Your task to perform on an android device: change the clock display to digital Image 0: 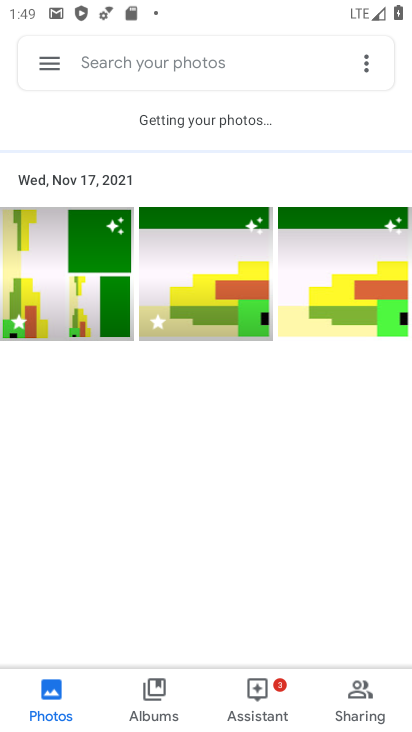
Step 0: press back button
Your task to perform on an android device: change the clock display to digital Image 1: 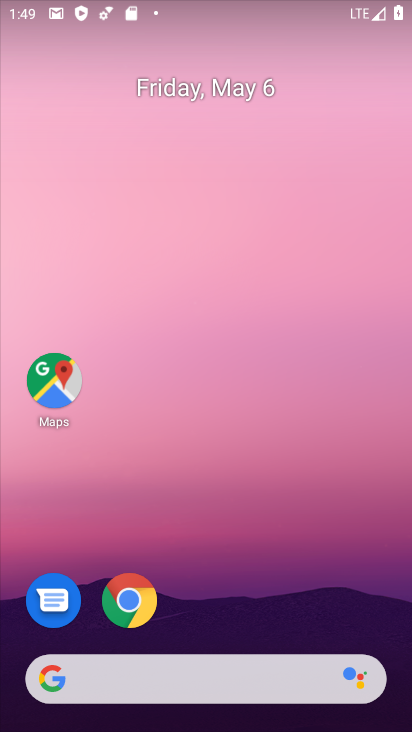
Step 1: drag from (207, 648) to (310, 60)
Your task to perform on an android device: change the clock display to digital Image 2: 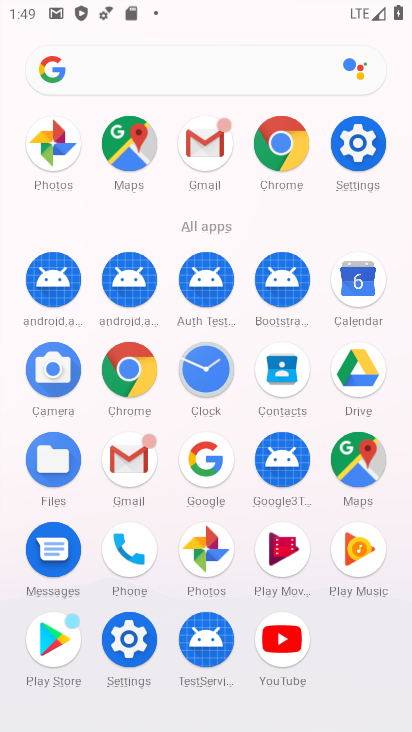
Step 2: click (206, 361)
Your task to perform on an android device: change the clock display to digital Image 3: 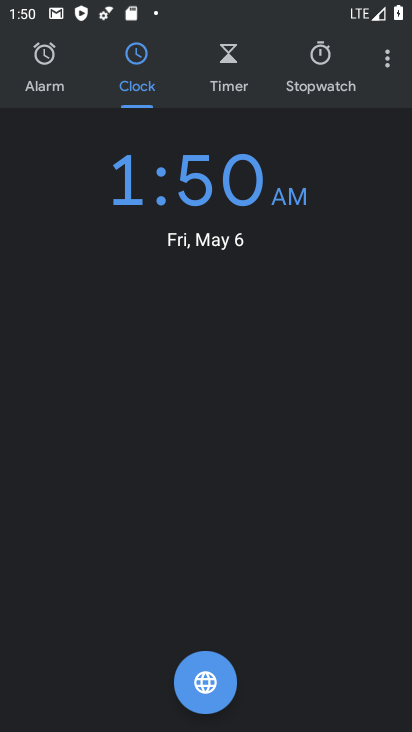
Step 3: click (394, 62)
Your task to perform on an android device: change the clock display to digital Image 4: 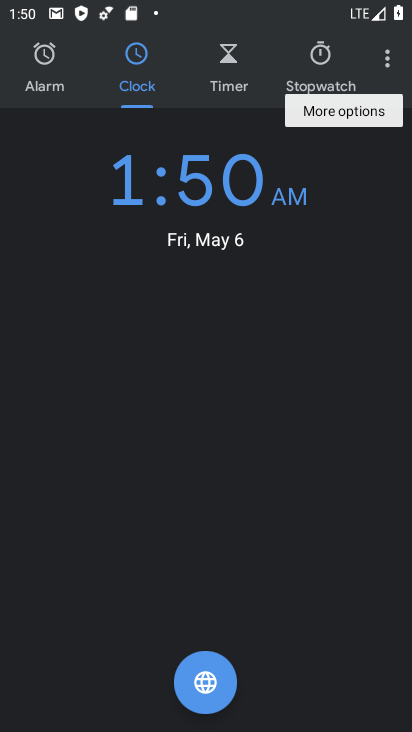
Step 4: click (388, 69)
Your task to perform on an android device: change the clock display to digital Image 5: 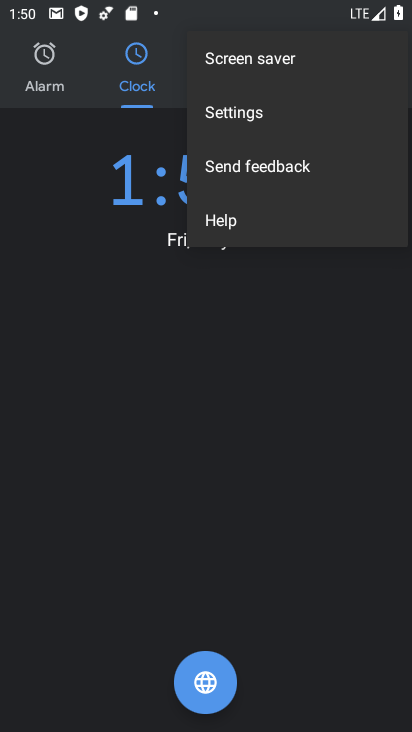
Step 5: click (311, 112)
Your task to perform on an android device: change the clock display to digital Image 6: 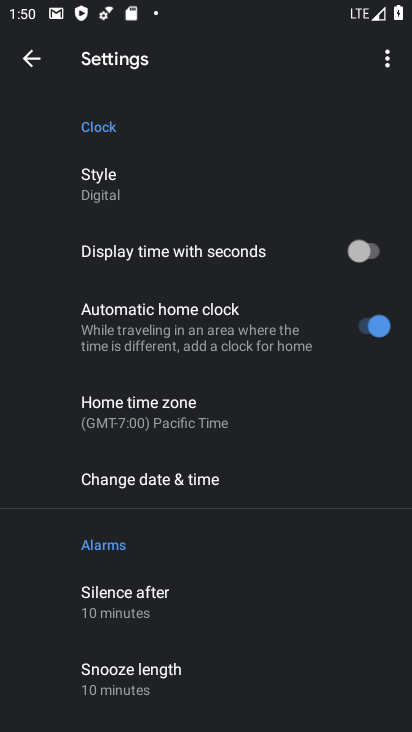
Step 6: click (137, 172)
Your task to perform on an android device: change the clock display to digital Image 7: 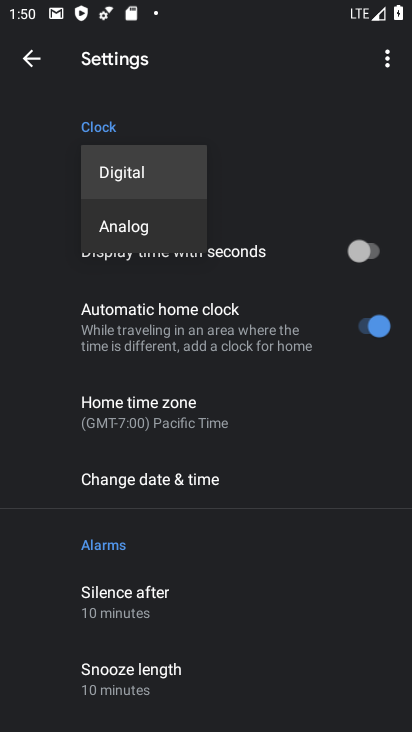
Step 7: task complete